Your task to perform on an android device: show emergency info Image 0: 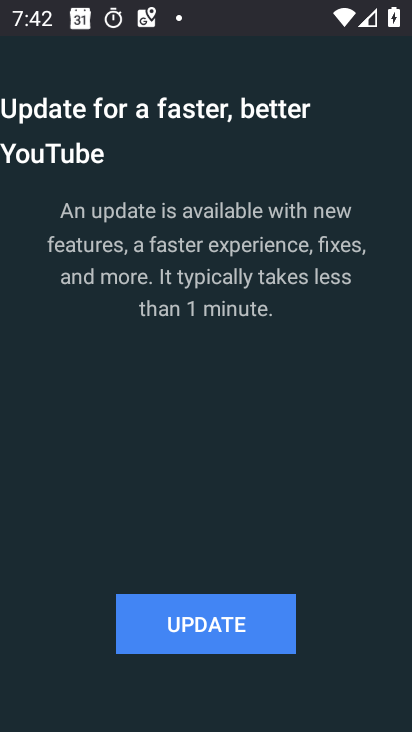
Step 0: press back button
Your task to perform on an android device: show emergency info Image 1: 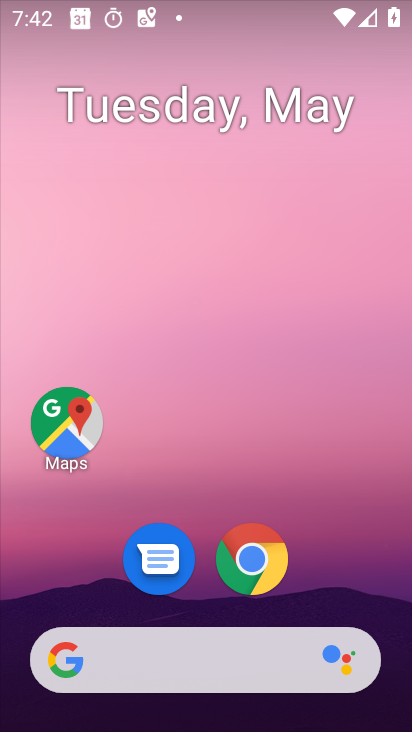
Step 1: drag from (403, 633) to (215, 52)
Your task to perform on an android device: show emergency info Image 2: 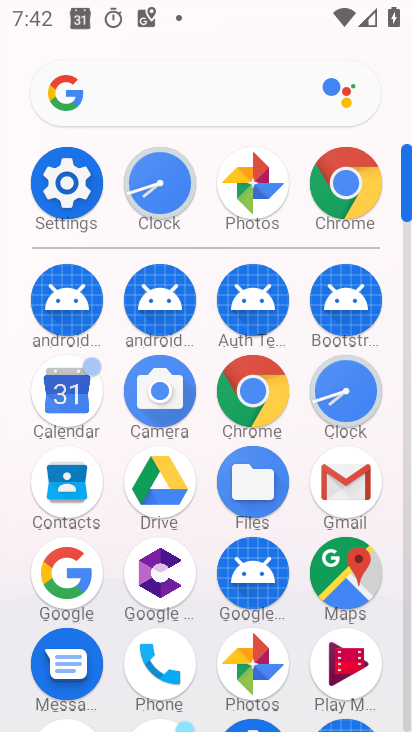
Step 2: click (54, 198)
Your task to perform on an android device: show emergency info Image 3: 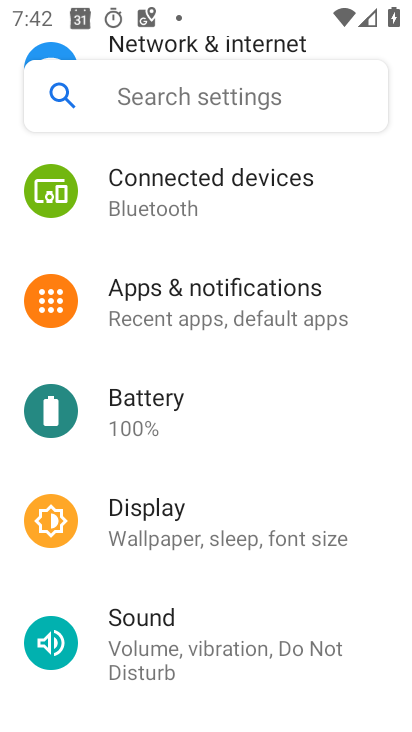
Step 3: drag from (285, 652) to (262, 74)
Your task to perform on an android device: show emergency info Image 4: 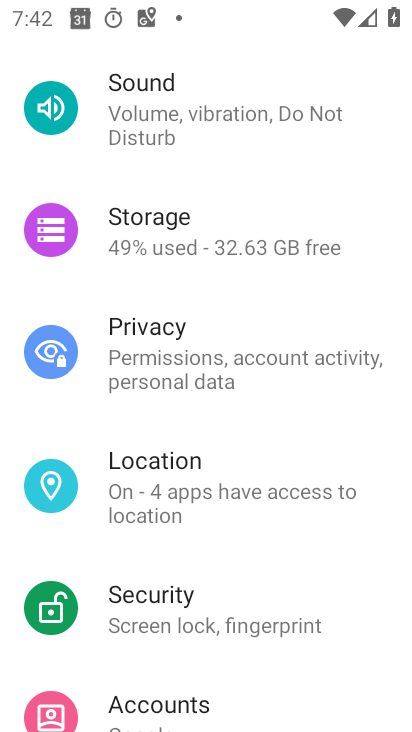
Step 4: drag from (185, 680) to (278, 90)
Your task to perform on an android device: show emergency info Image 5: 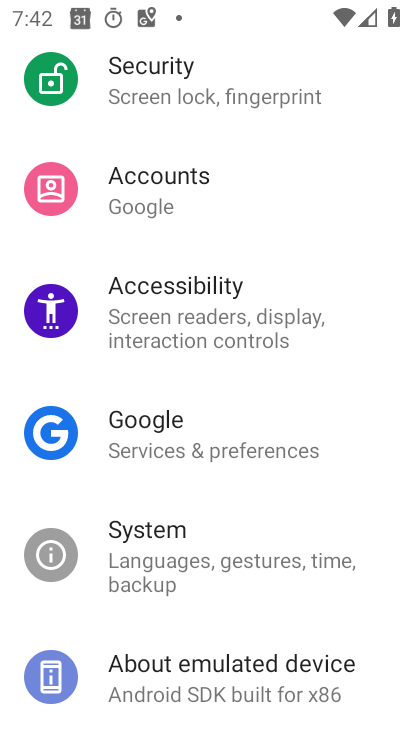
Step 5: click (219, 677)
Your task to perform on an android device: show emergency info Image 6: 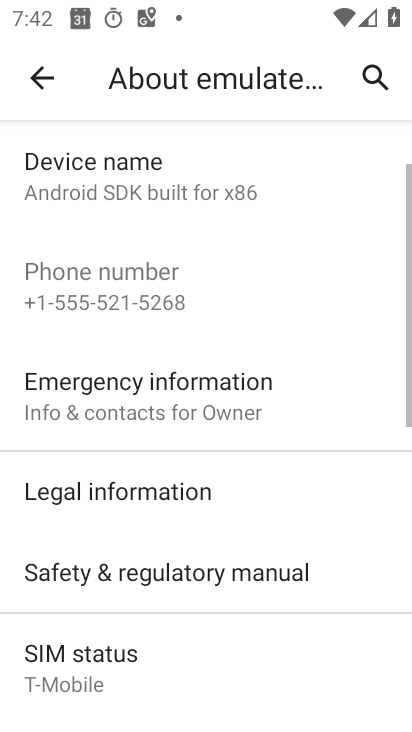
Step 6: click (170, 415)
Your task to perform on an android device: show emergency info Image 7: 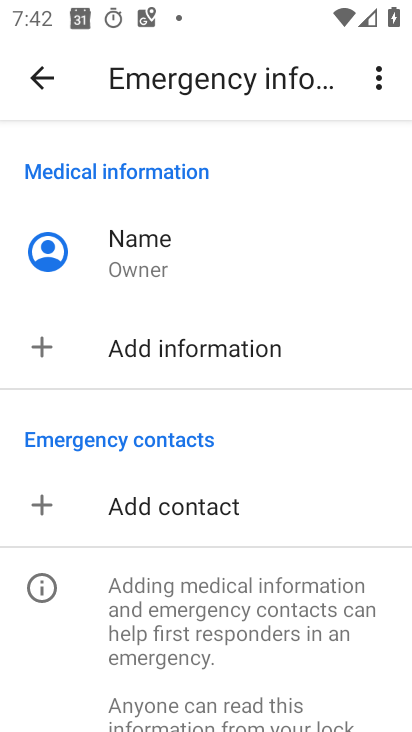
Step 7: task complete